Your task to perform on an android device: What's a good restaurant in Chicago? Image 0: 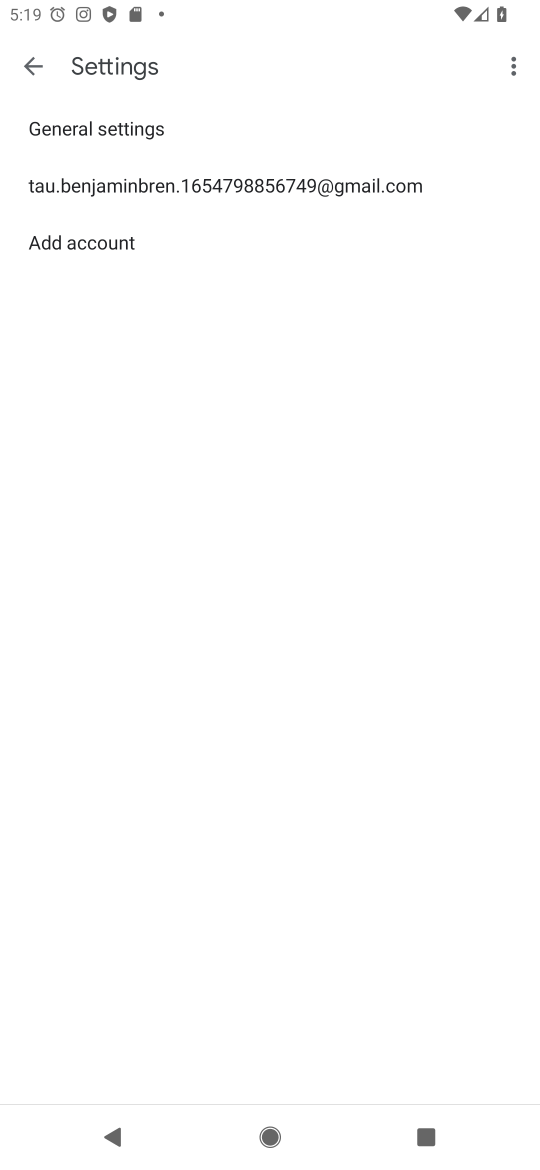
Step 0: press home button
Your task to perform on an android device: What's a good restaurant in Chicago? Image 1: 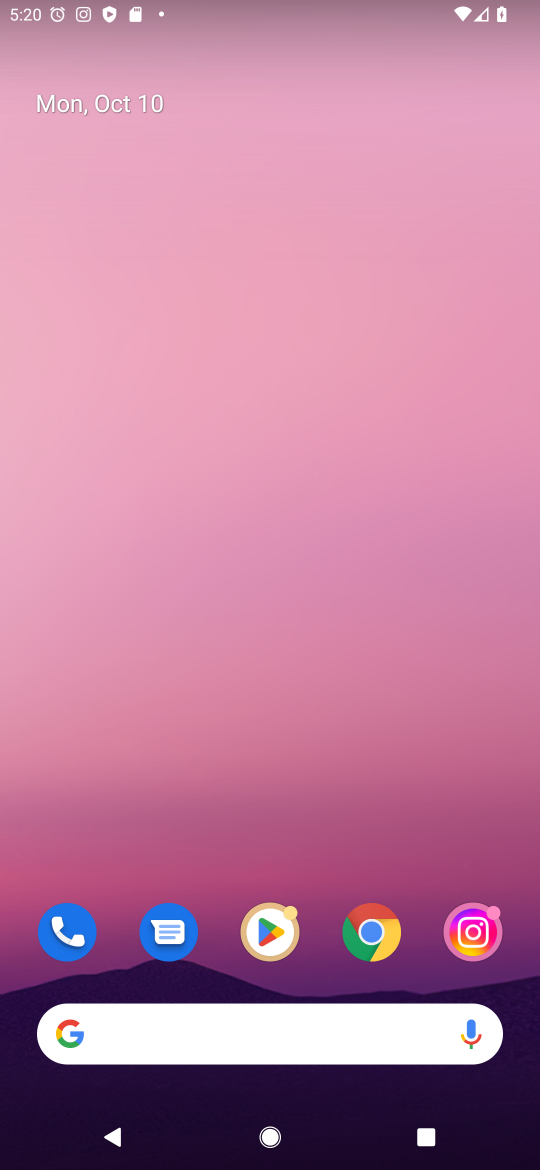
Step 1: click (328, 1027)
Your task to perform on an android device: What's a good restaurant in Chicago? Image 2: 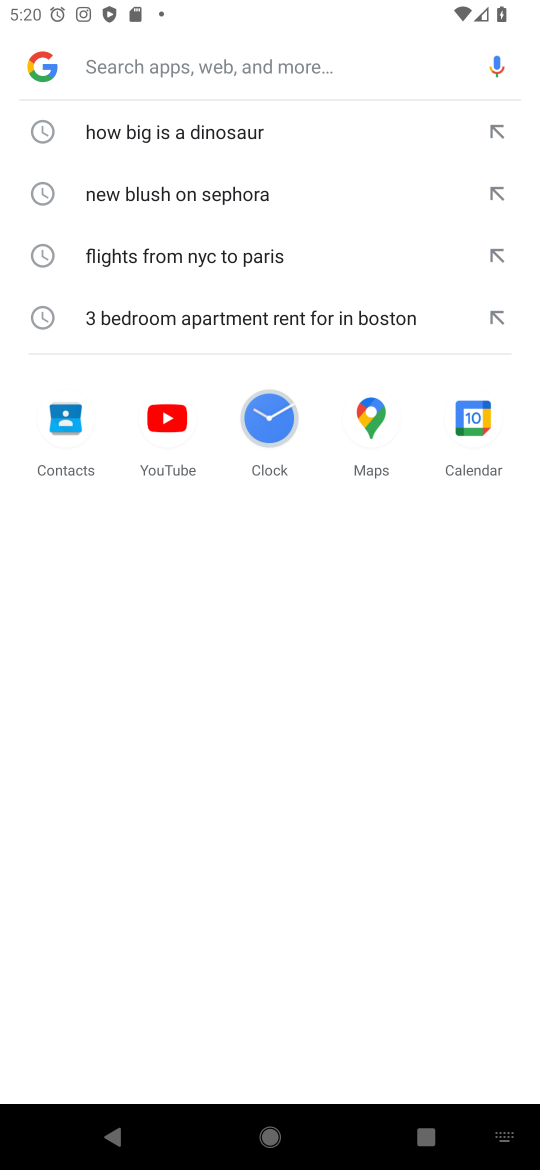
Step 2: type "What's a good restaurant in Chicago"
Your task to perform on an android device: What's a good restaurant in Chicago? Image 3: 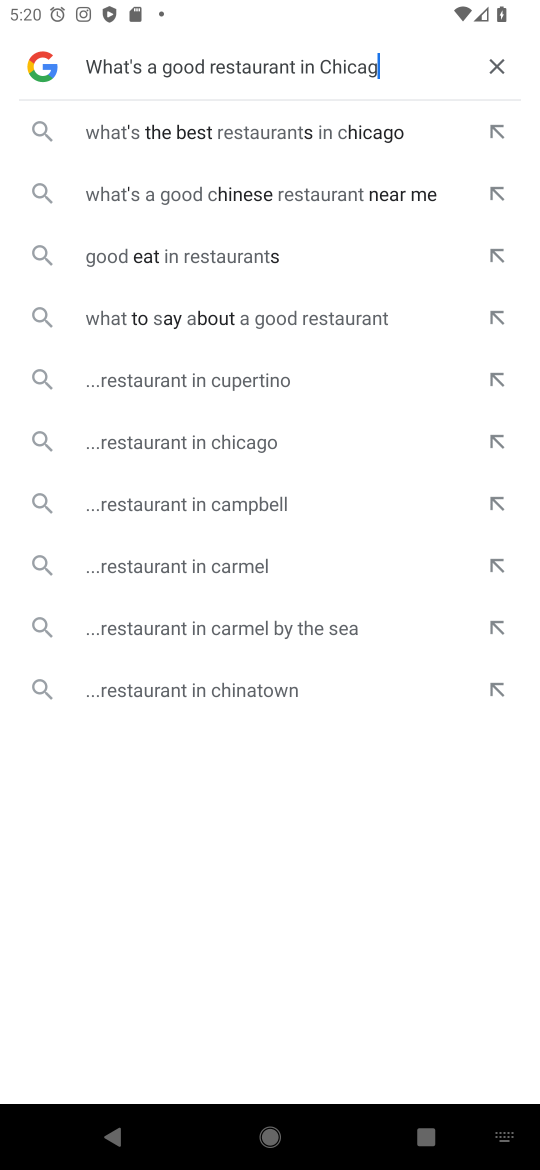
Step 3: press enter
Your task to perform on an android device: What's a good restaurant in Chicago? Image 4: 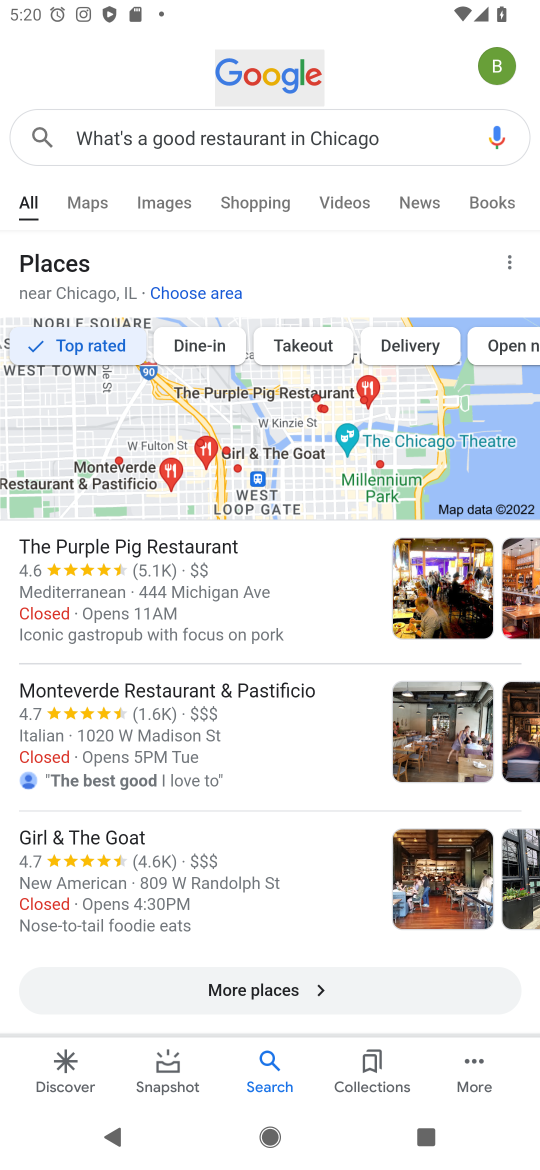
Step 4: click (280, 991)
Your task to perform on an android device: What's a good restaurant in Chicago? Image 5: 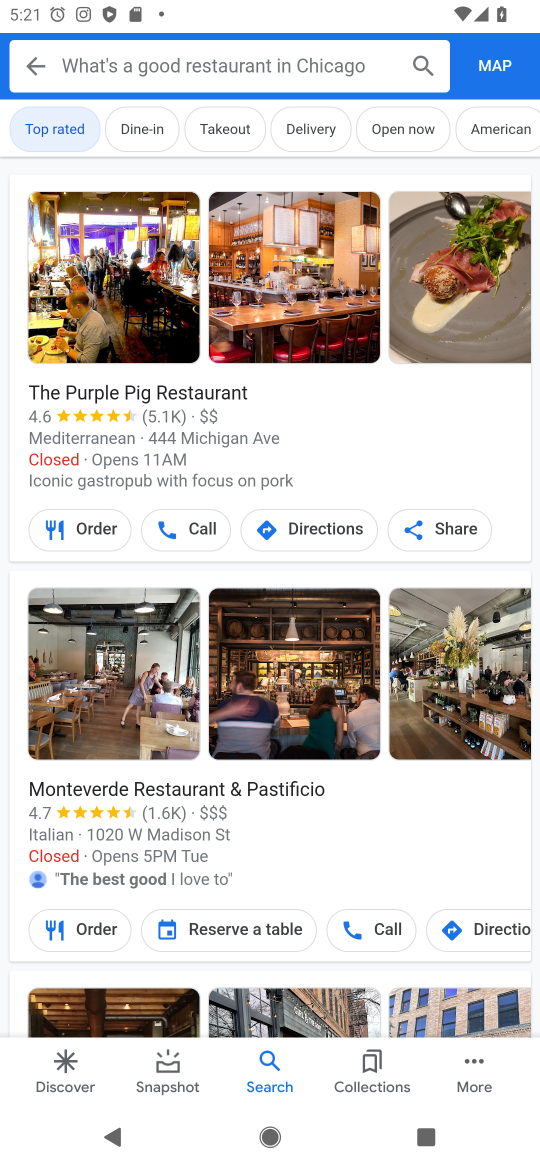
Step 5: task complete